Your task to perform on an android device: toggle show notifications on the lock screen Image 0: 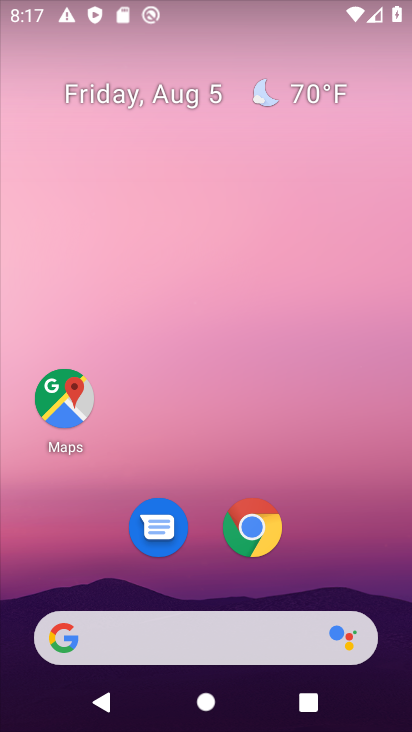
Step 0: drag from (259, 427) to (283, 125)
Your task to perform on an android device: toggle show notifications on the lock screen Image 1: 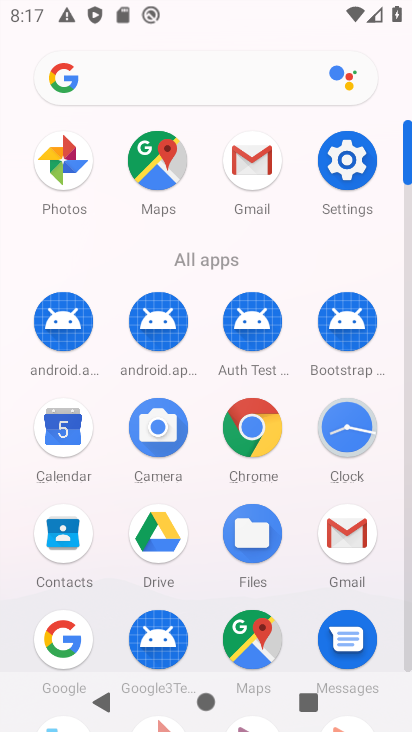
Step 1: click (349, 194)
Your task to perform on an android device: toggle show notifications on the lock screen Image 2: 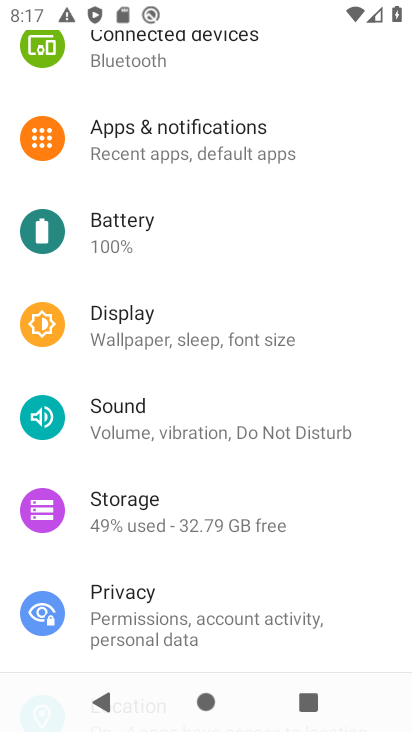
Step 2: click (159, 157)
Your task to perform on an android device: toggle show notifications on the lock screen Image 3: 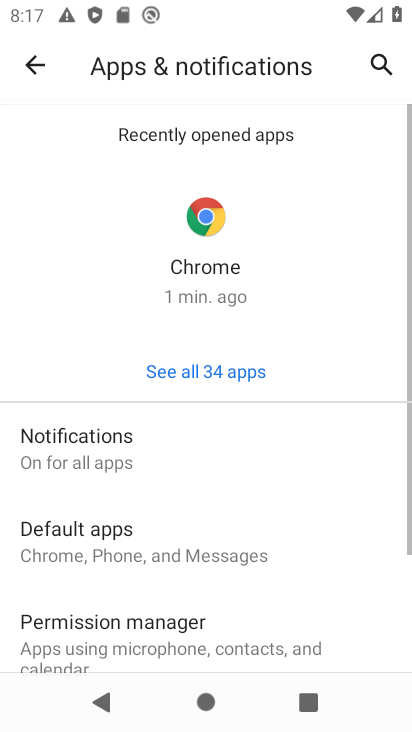
Step 3: click (64, 463)
Your task to perform on an android device: toggle show notifications on the lock screen Image 4: 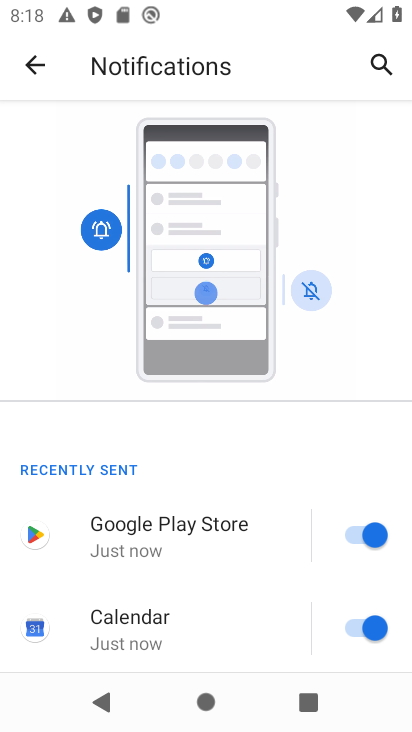
Step 4: drag from (147, 515) to (168, 25)
Your task to perform on an android device: toggle show notifications on the lock screen Image 5: 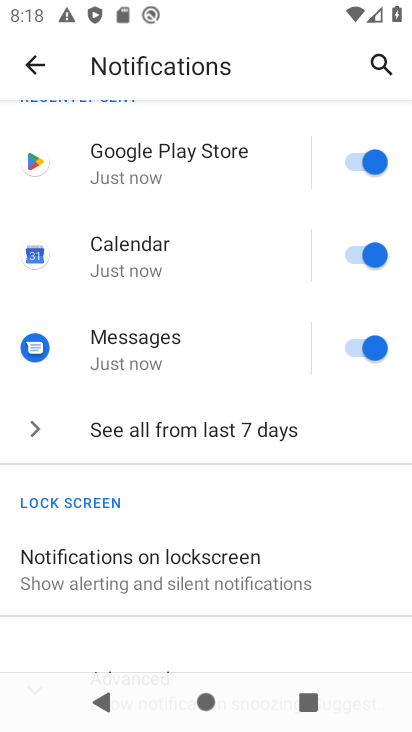
Step 5: click (221, 562)
Your task to perform on an android device: toggle show notifications on the lock screen Image 6: 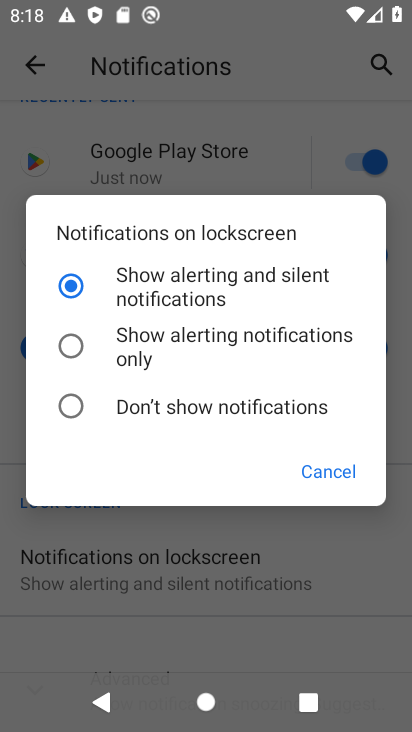
Step 6: click (159, 420)
Your task to perform on an android device: toggle show notifications on the lock screen Image 7: 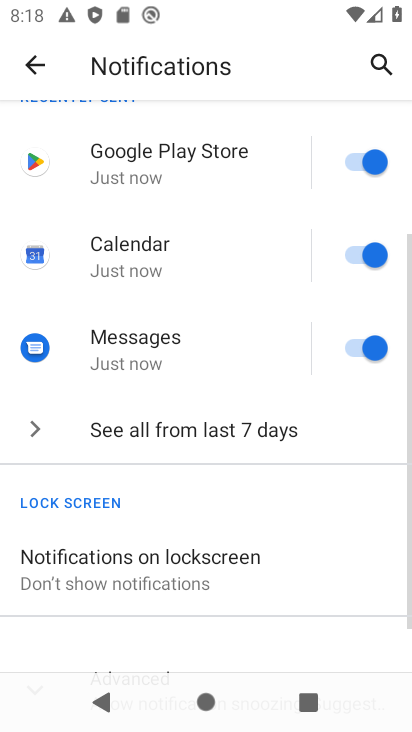
Step 7: task complete